Your task to perform on an android device: See recent photos Image 0: 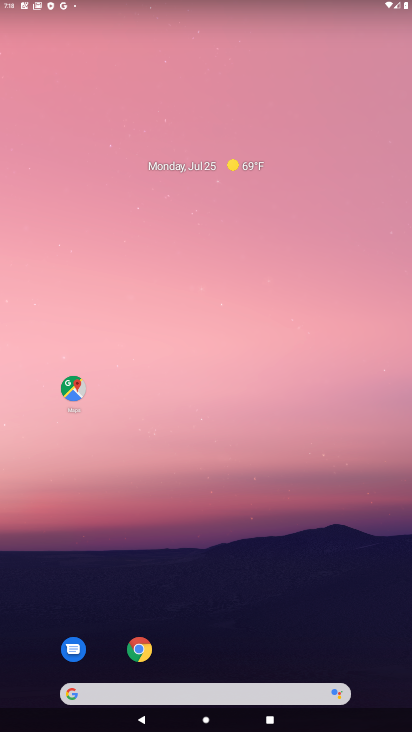
Step 0: drag from (257, 595) to (301, 4)
Your task to perform on an android device: See recent photos Image 1: 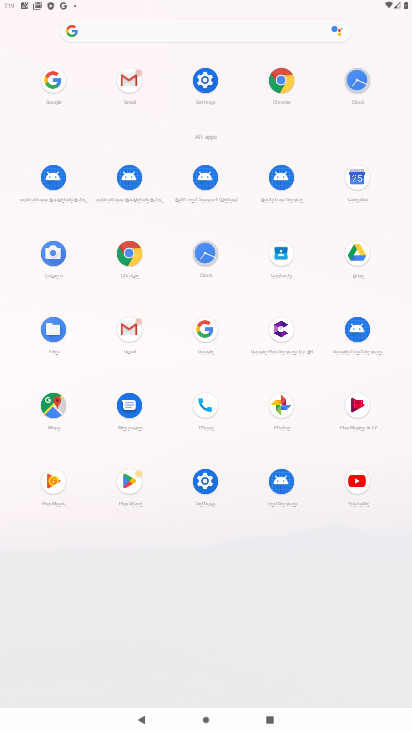
Step 1: click (278, 407)
Your task to perform on an android device: See recent photos Image 2: 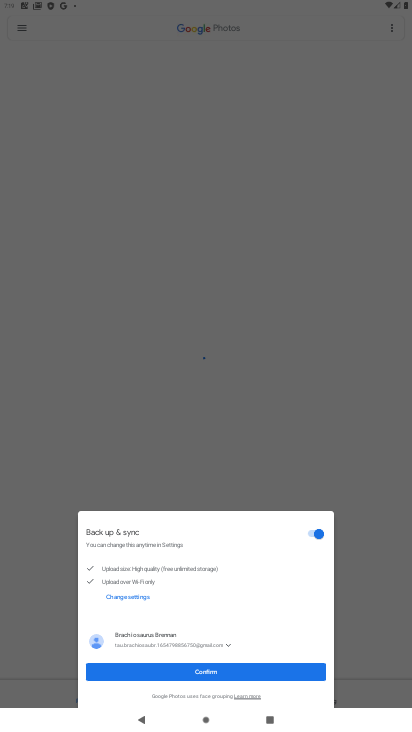
Step 2: click (201, 663)
Your task to perform on an android device: See recent photos Image 3: 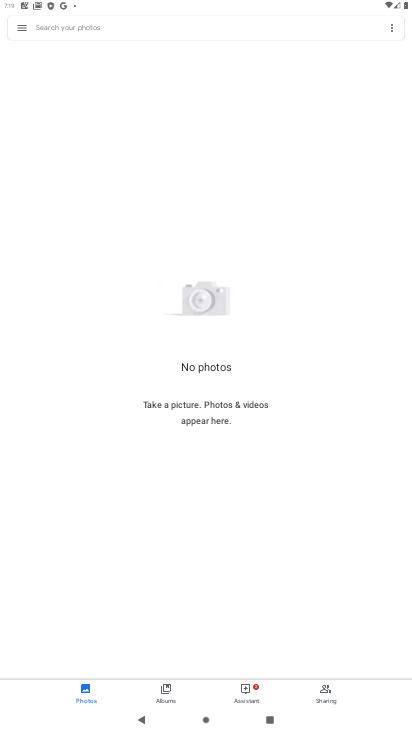
Step 3: task complete